Your task to perform on an android device: toggle wifi Image 0: 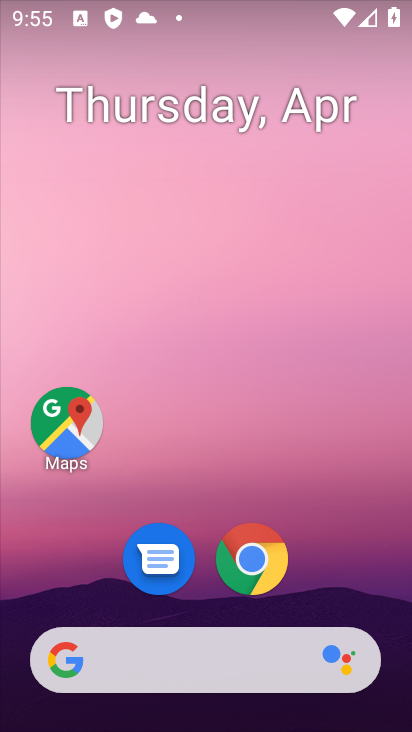
Step 0: drag from (141, 721) to (99, 58)
Your task to perform on an android device: toggle wifi Image 1: 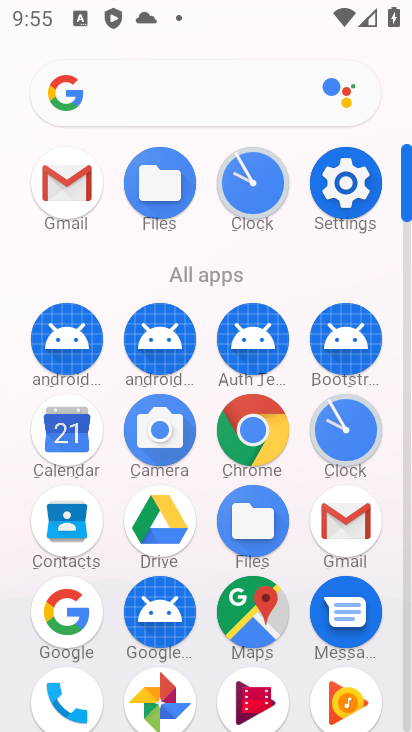
Step 1: click (360, 189)
Your task to perform on an android device: toggle wifi Image 2: 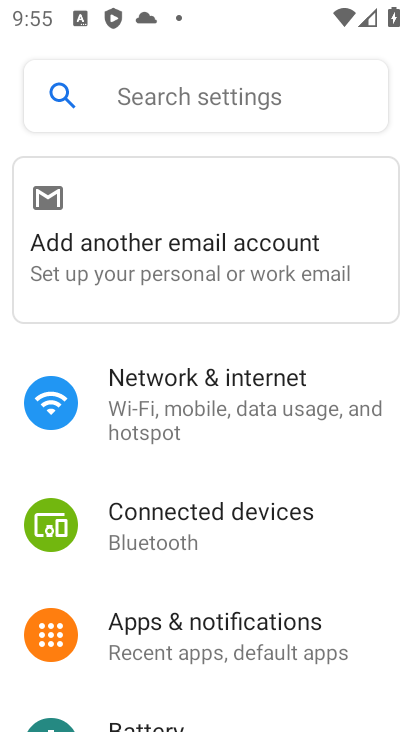
Step 2: click (195, 413)
Your task to perform on an android device: toggle wifi Image 3: 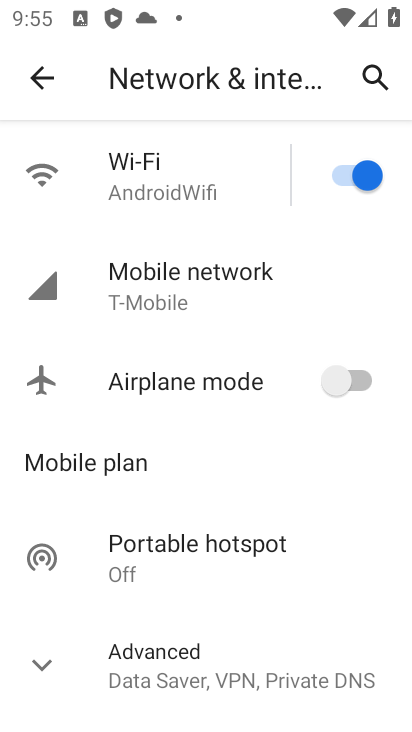
Step 3: click (373, 180)
Your task to perform on an android device: toggle wifi Image 4: 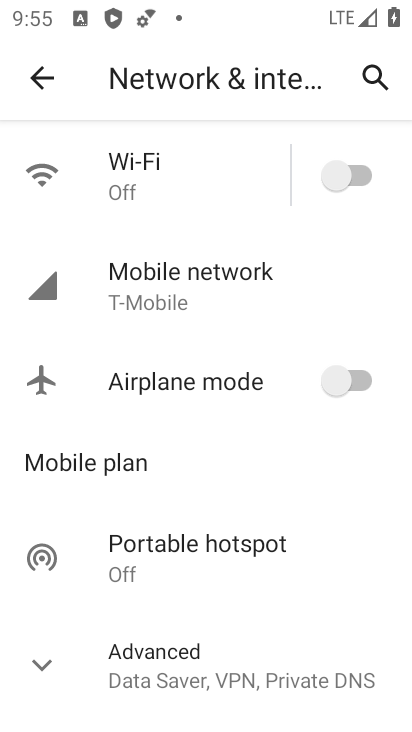
Step 4: task complete